Your task to perform on an android device: Clear the cart on amazon. Image 0: 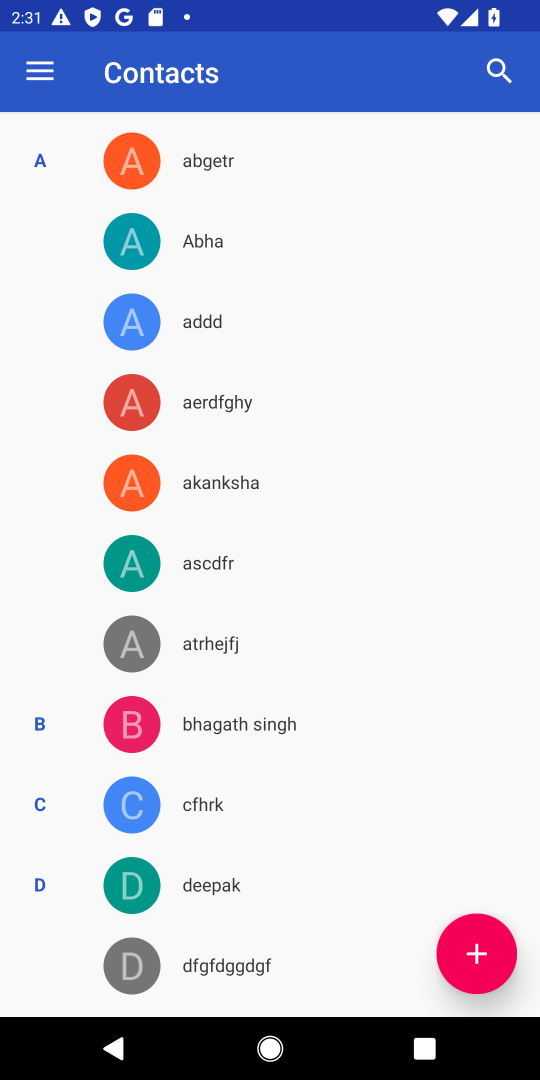
Step 0: press home button
Your task to perform on an android device: Clear the cart on amazon. Image 1: 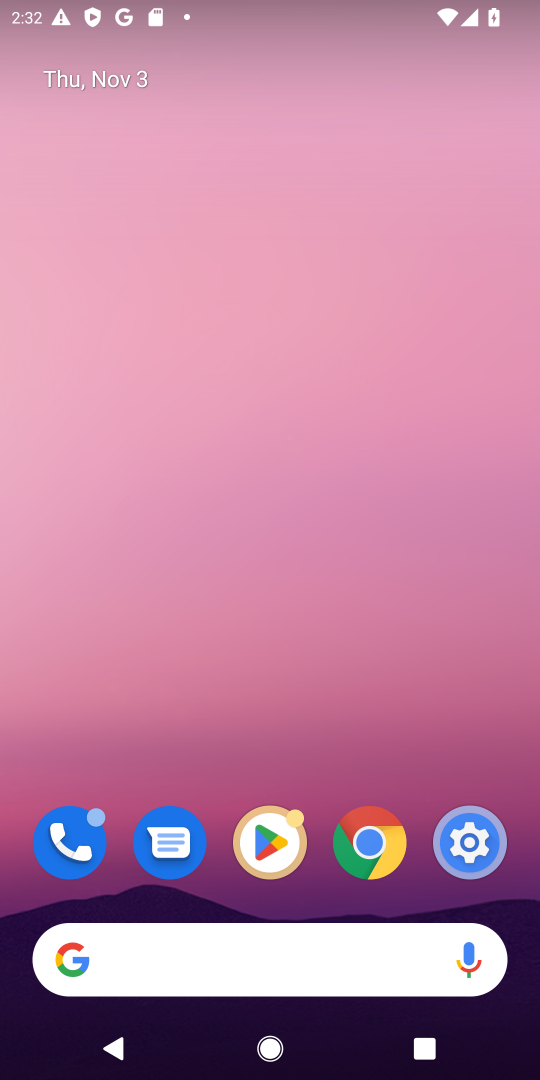
Step 1: click (129, 948)
Your task to perform on an android device: Clear the cart on amazon. Image 2: 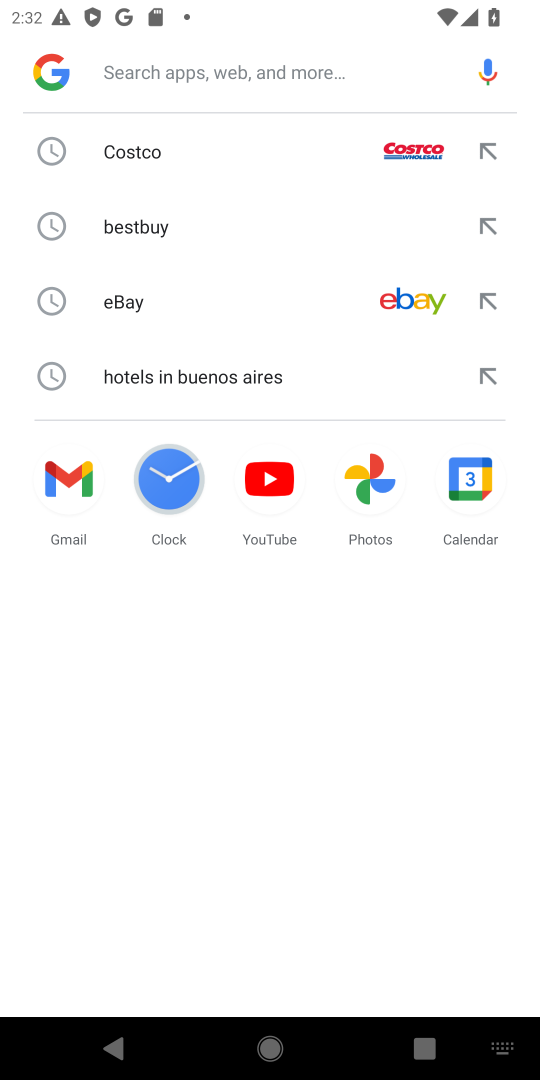
Step 2: type "amazon"
Your task to perform on an android device: Clear the cart on amazon. Image 3: 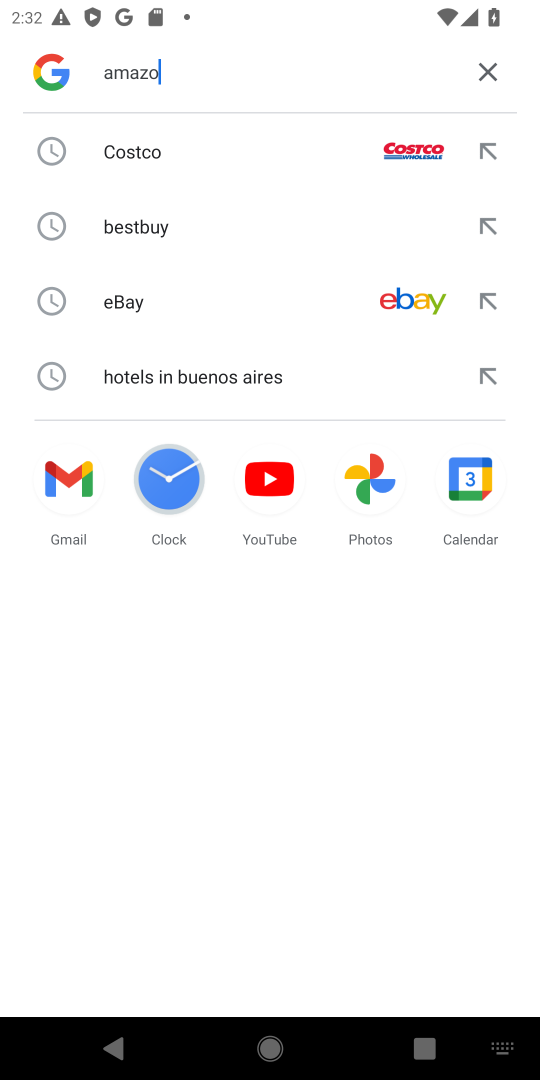
Step 3: press enter
Your task to perform on an android device: Clear the cart on amazon. Image 4: 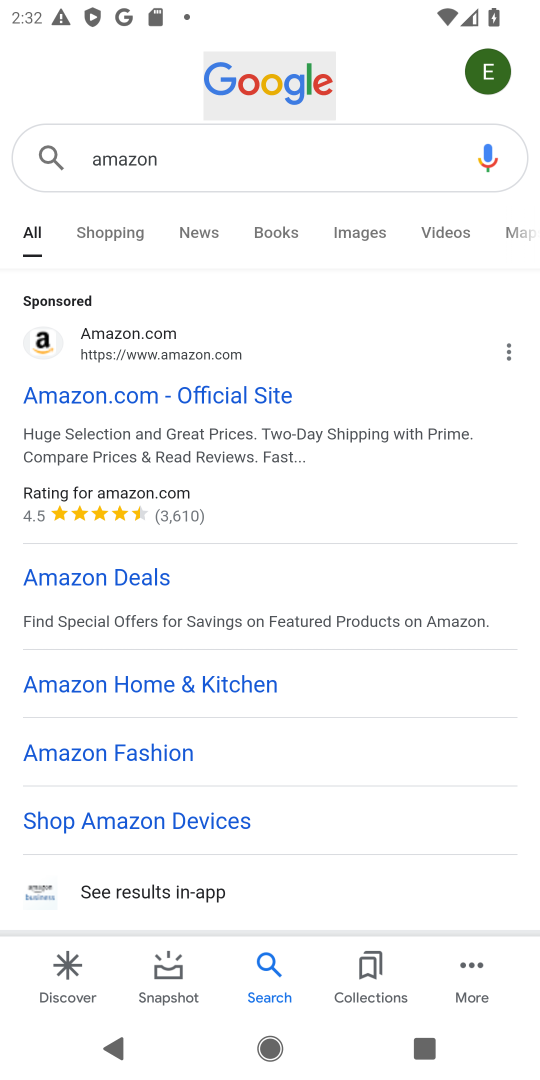
Step 4: click (138, 392)
Your task to perform on an android device: Clear the cart on amazon. Image 5: 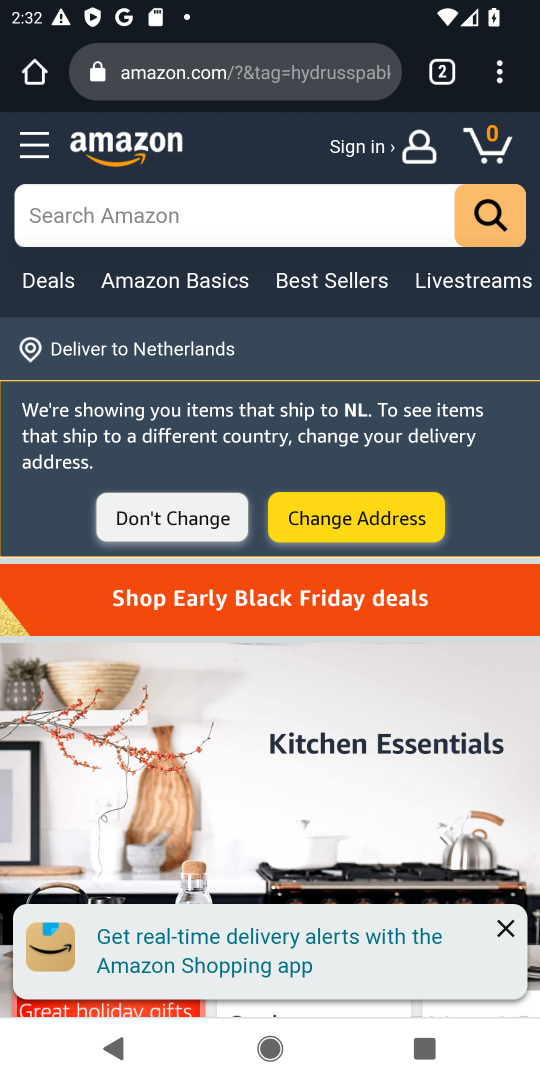
Step 5: click (489, 128)
Your task to perform on an android device: Clear the cart on amazon. Image 6: 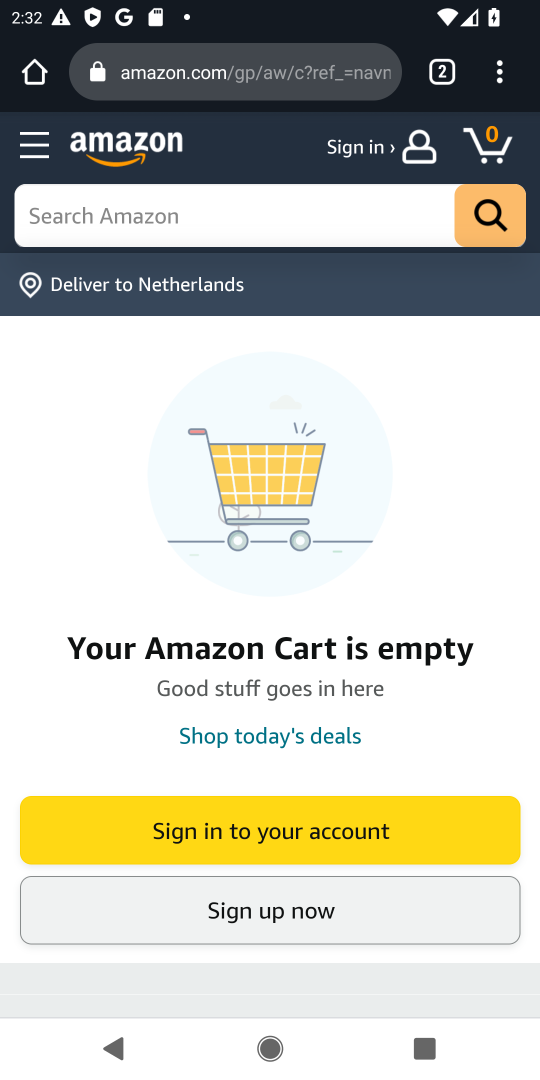
Step 6: task complete